Your task to perform on an android device: turn on notifications settings in the gmail app Image 0: 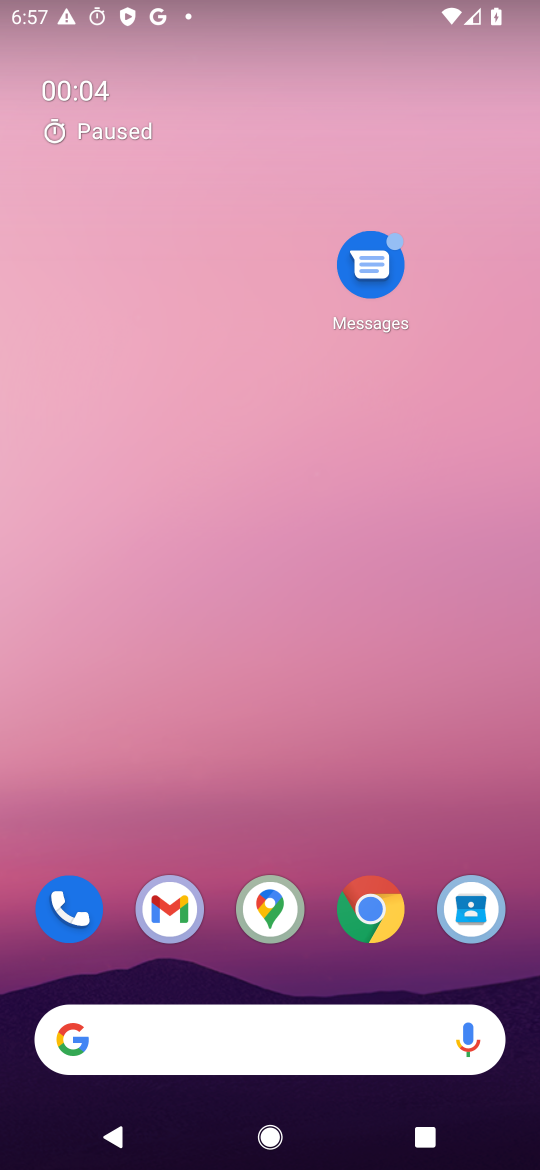
Step 0: press home button
Your task to perform on an android device: turn on notifications settings in the gmail app Image 1: 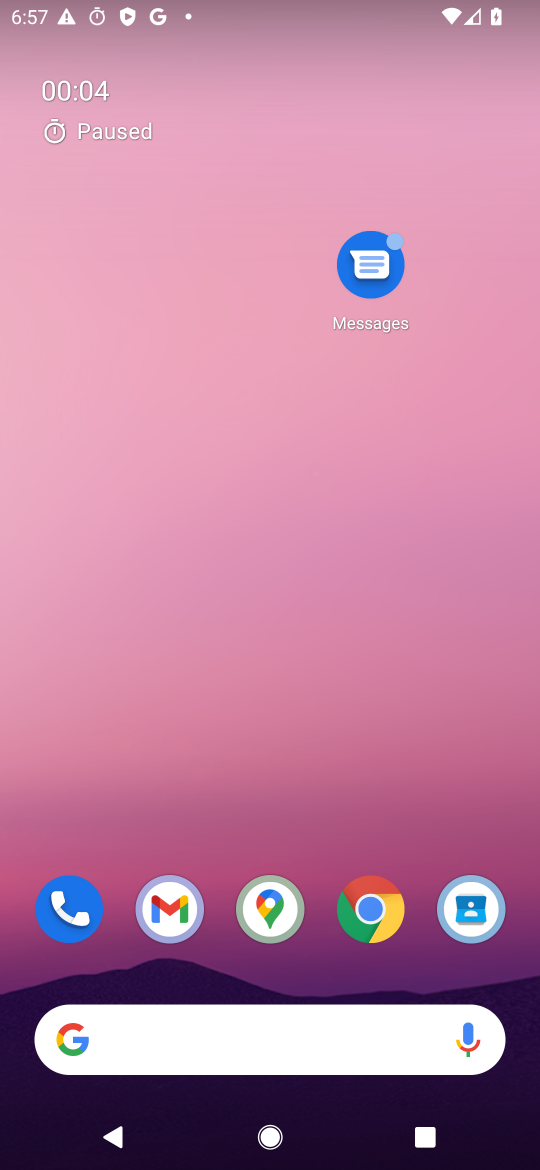
Step 1: click (165, 926)
Your task to perform on an android device: turn on notifications settings in the gmail app Image 2: 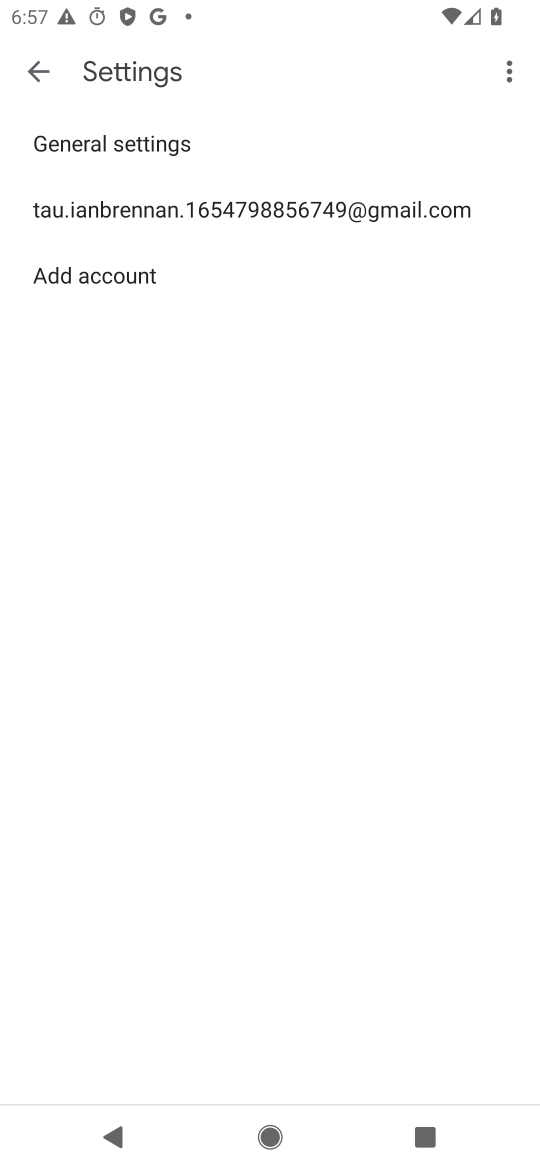
Step 2: click (348, 201)
Your task to perform on an android device: turn on notifications settings in the gmail app Image 3: 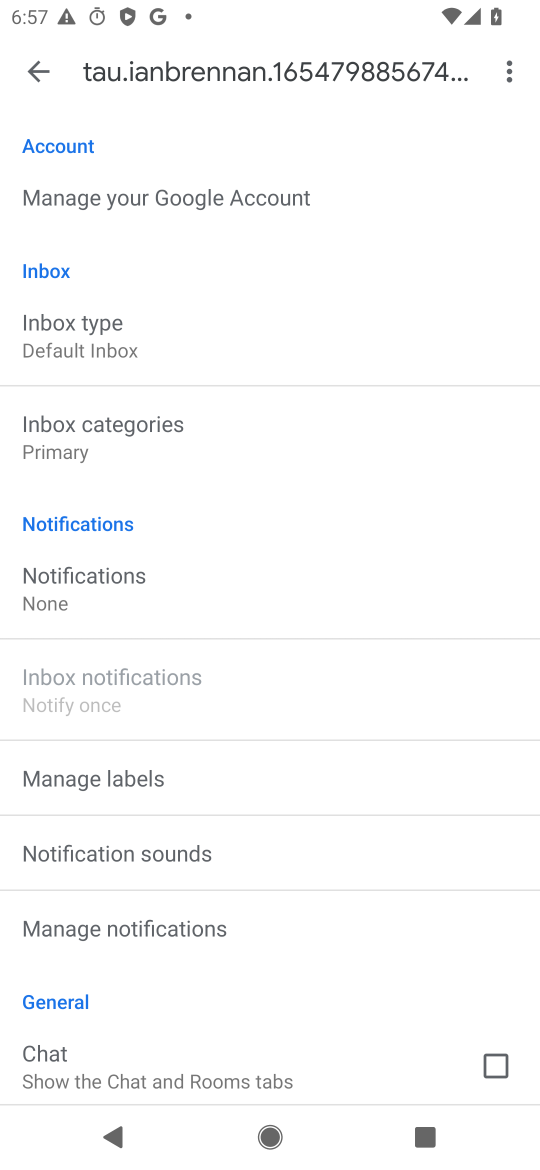
Step 3: click (90, 586)
Your task to perform on an android device: turn on notifications settings in the gmail app Image 4: 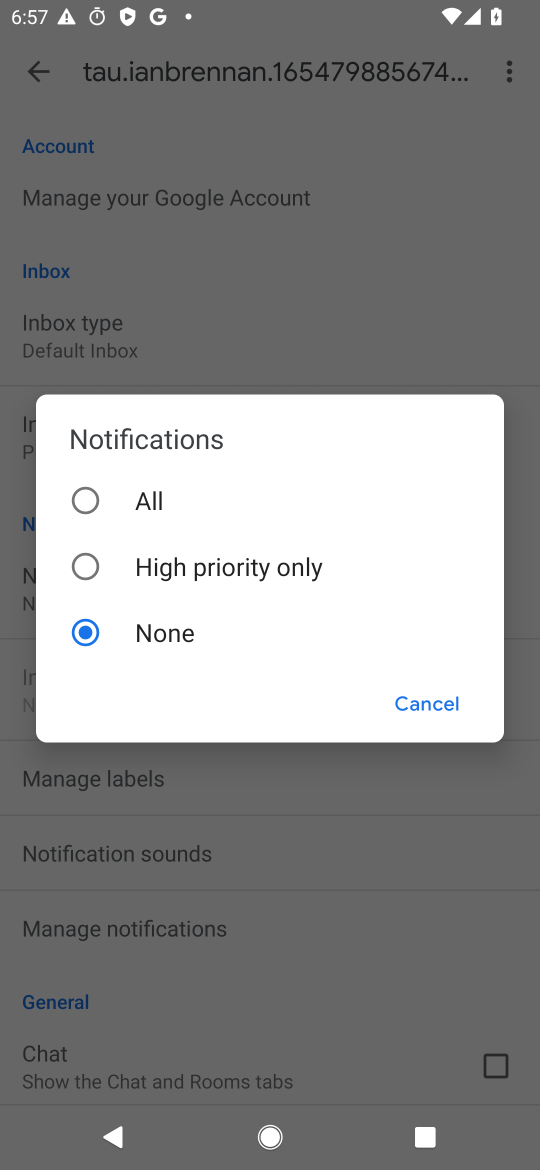
Step 4: click (85, 500)
Your task to perform on an android device: turn on notifications settings in the gmail app Image 5: 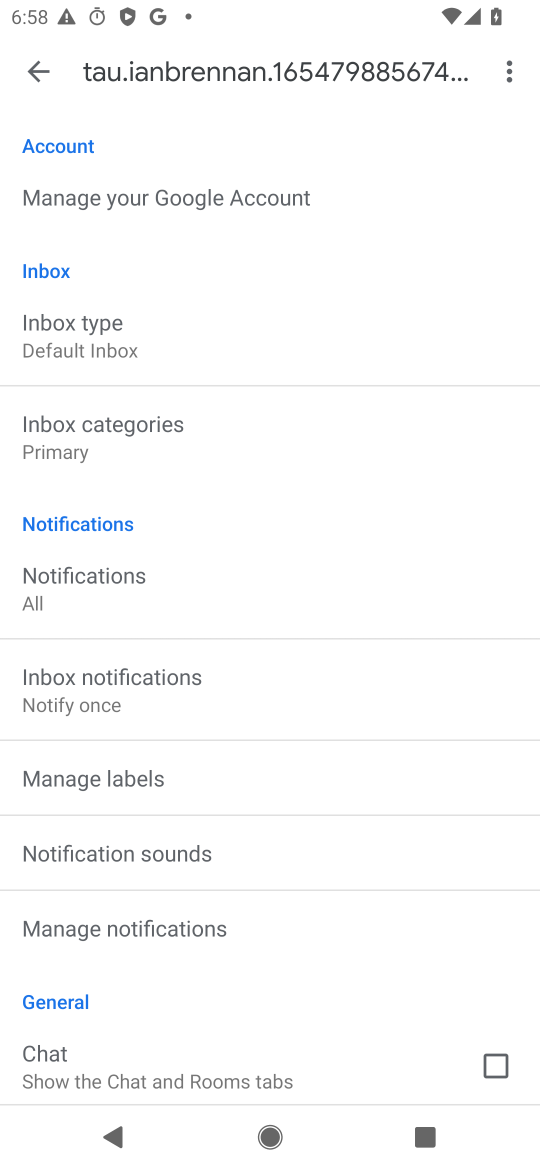
Step 5: task complete